Your task to perform on an android device: delete a single message in the gmail app Image 0: 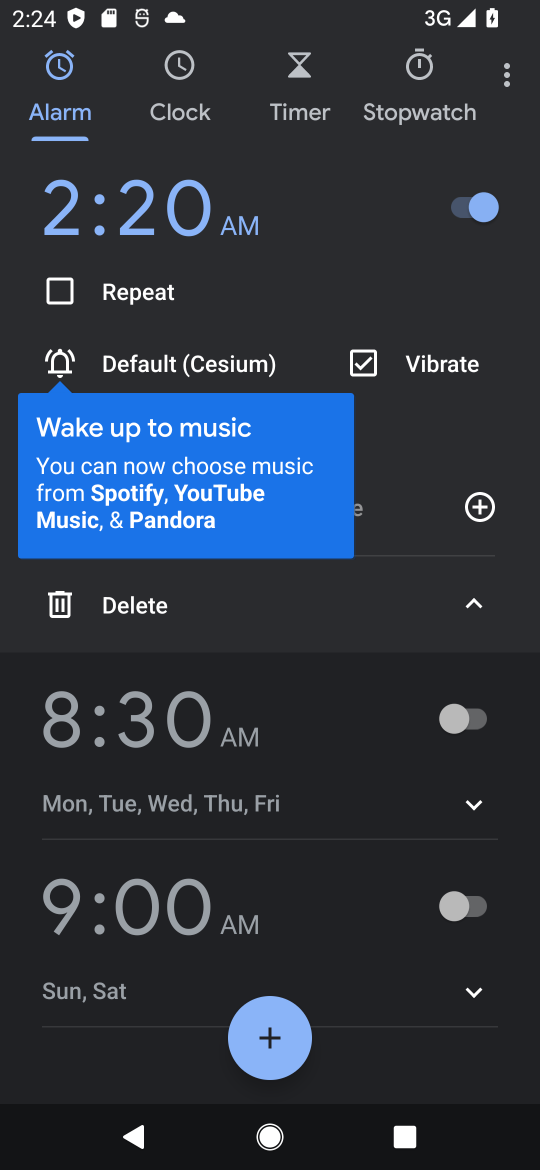
Step 0: press home button
Your task to perform on an android device: delete a single message in the gmail app Image 1: 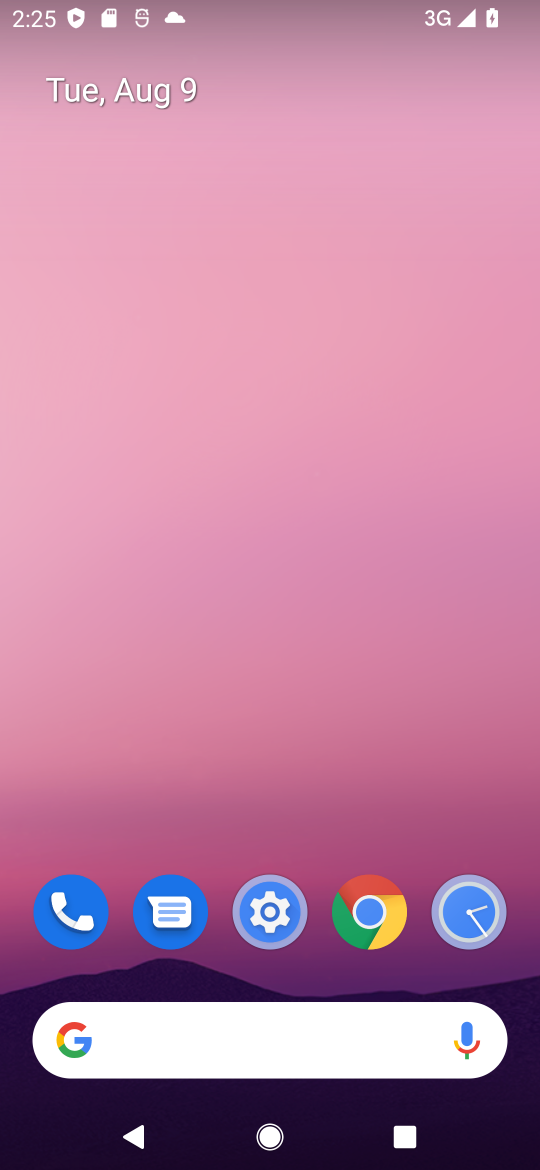
Step 1: drag from (296, 780) to (263, 170)
Your task to perform on an android device: delete a single message in the gmail app Image 2: 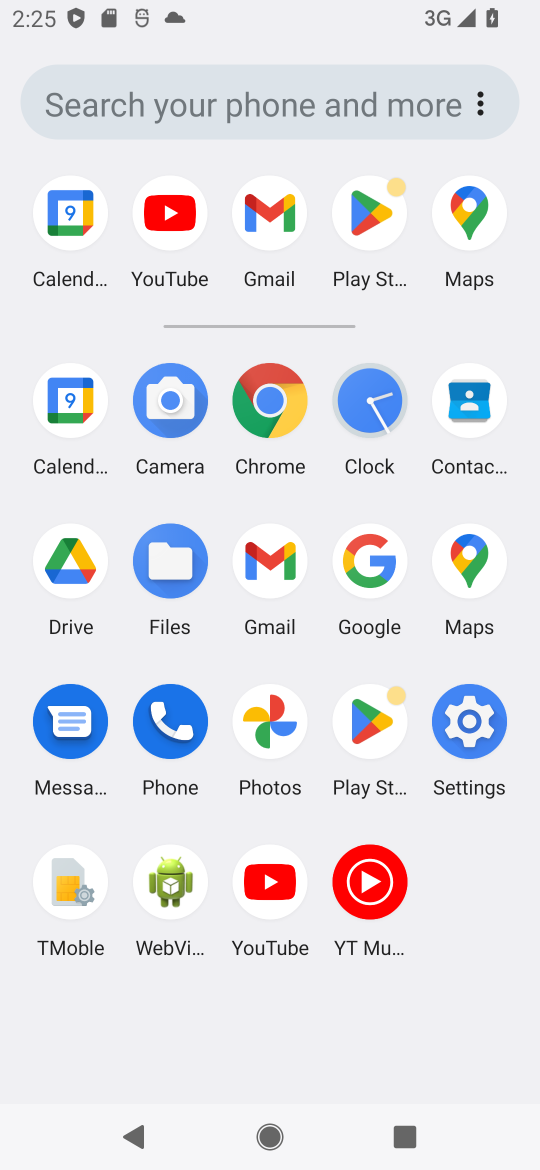
Step 2: click (264, 222)
Your task to perform on an android device: delete a single message in the gmail app Image 3: 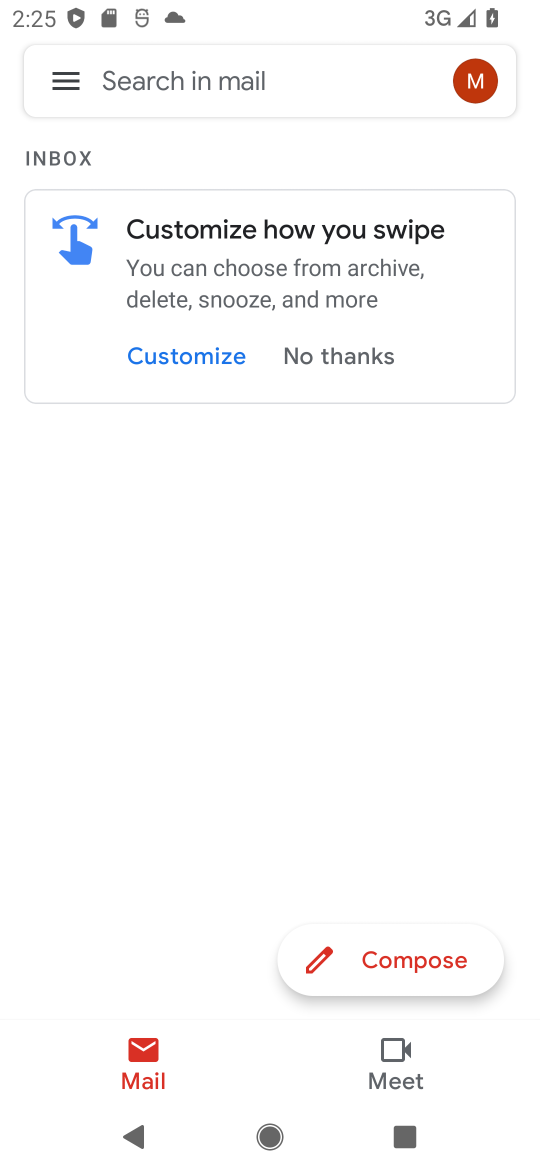
Step 3: click (329, 349)
Your task to perform on an android device: delete a single message in the gmail app Image 4: 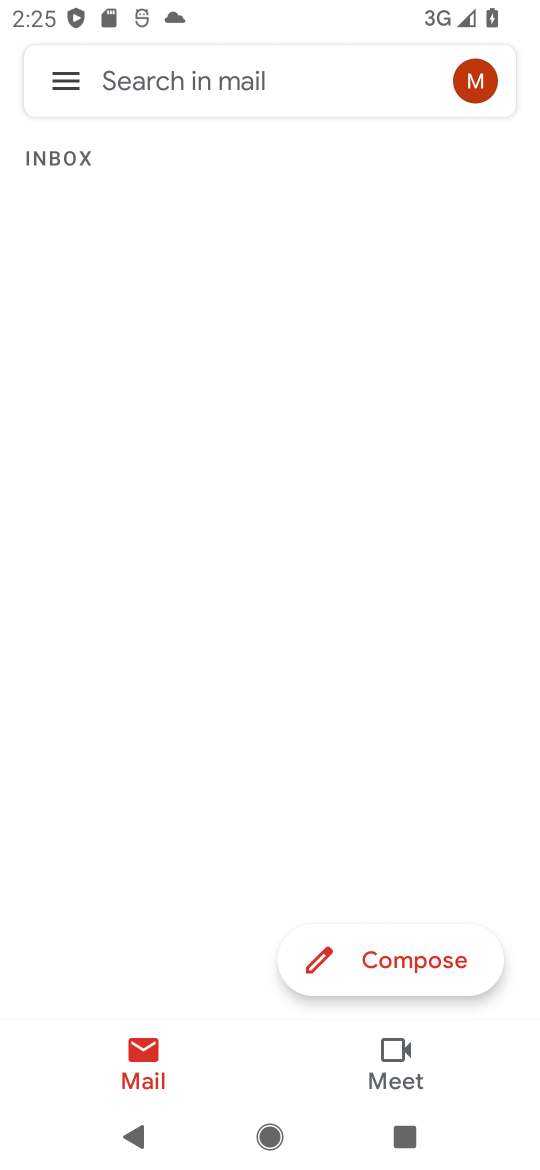
Step 4: click (64, 74)
Your task to perform on an android device: delete a single message in the gmail app Image 5: 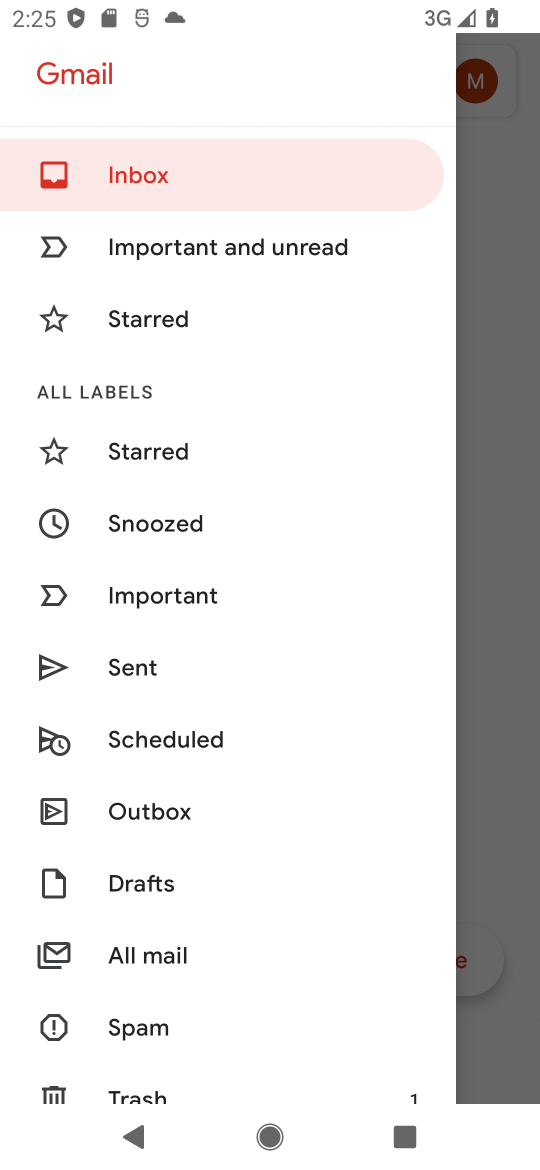
Step 5: drag from (247, 863) to (201, 268)
Your task to perform on an android device: delete a single message in the gmail app Image 6: 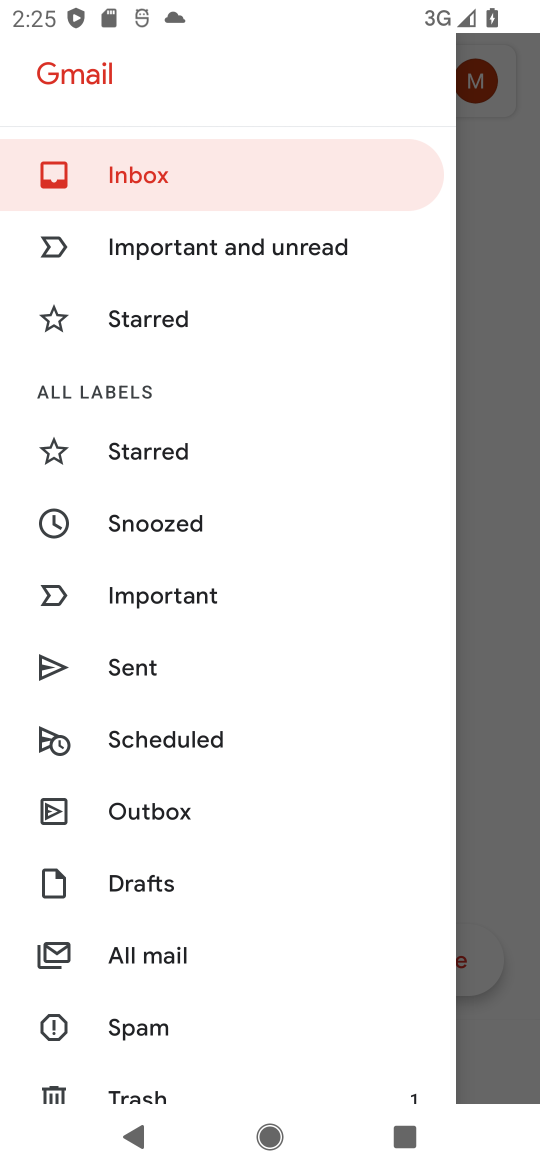
Step 6: click (146, 949)
Your task to perform on an android device: delete a single message in the gmail app Image 7: 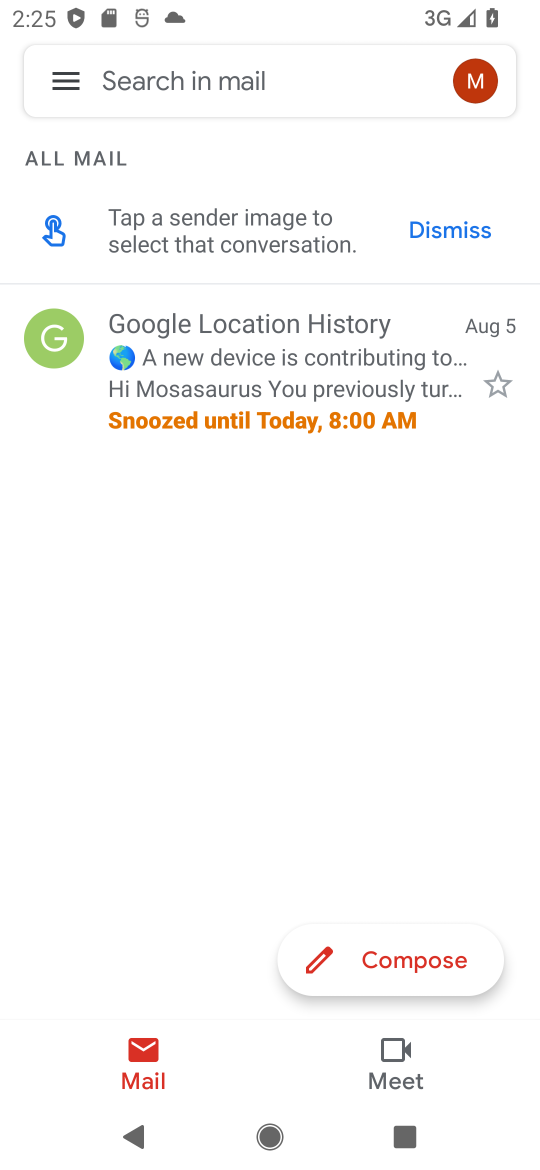
Step 7: click (243, 363)
Your task to perform on an android device: delete a single message in the gmail app Image 8: 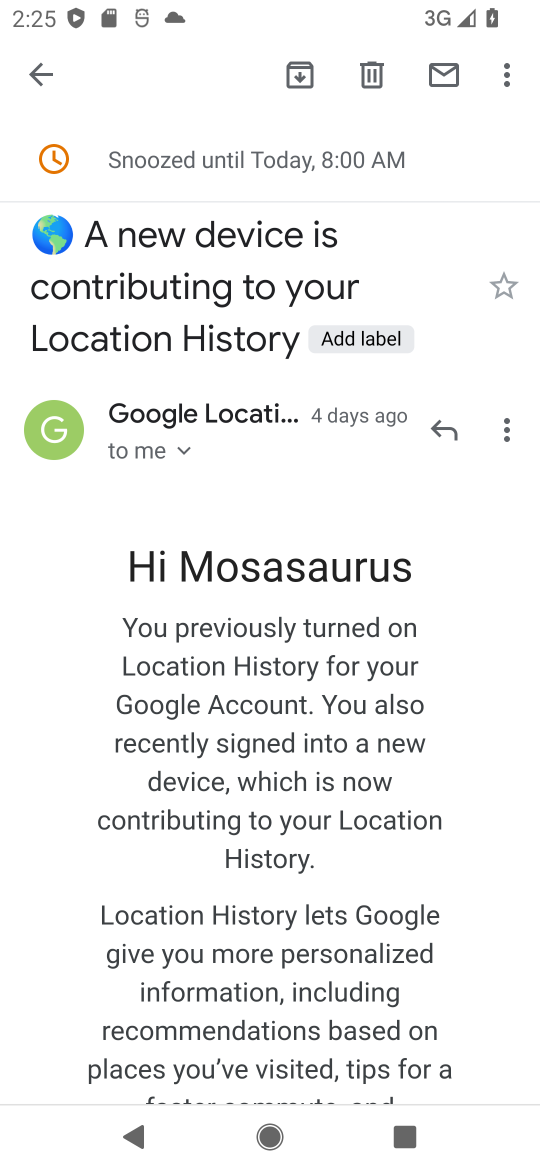
Step 8: click (370, 69)
Your task to perform on an android device: delete a single message in the gmail app Image 9: 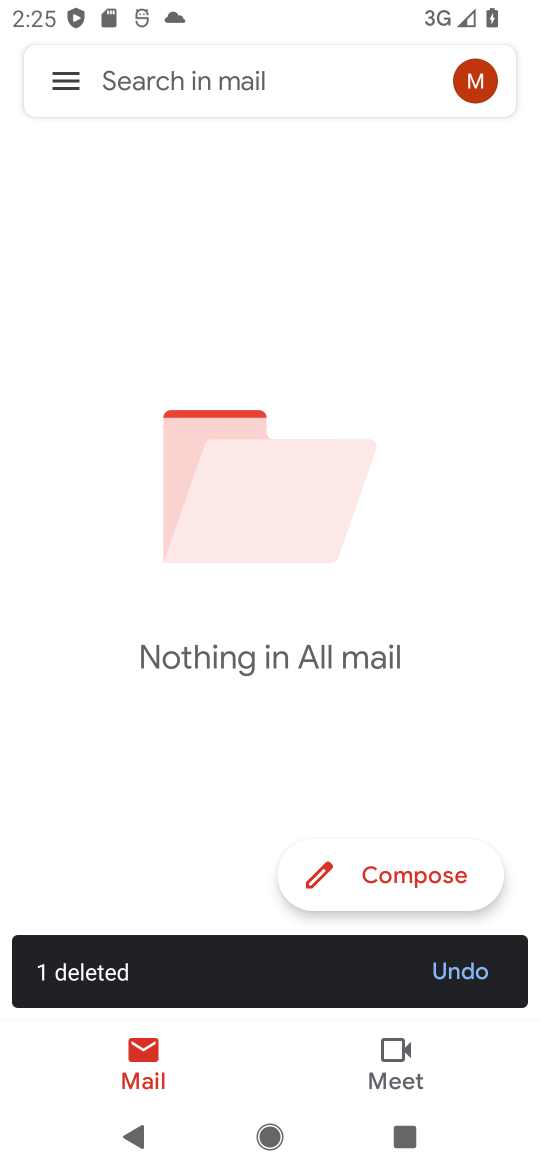
Step 9: task complete